Your task to perform on an android device: open app "Pluto TV - Live TV and Movies" Image 0: 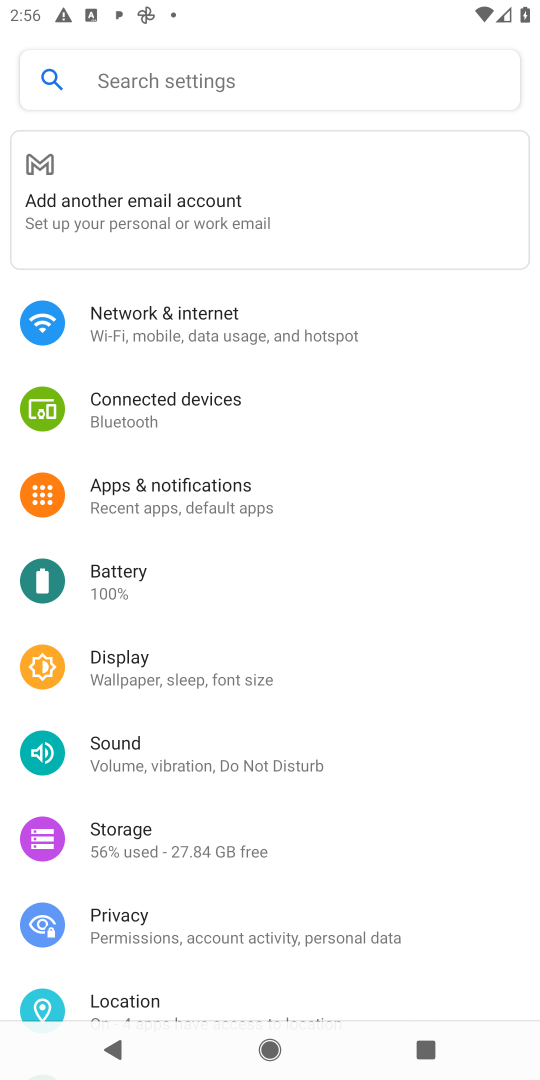
Step 0: press home button
Your task to perform on an android device: open app "Pluto TV - Live TV and Movies" Image 1: 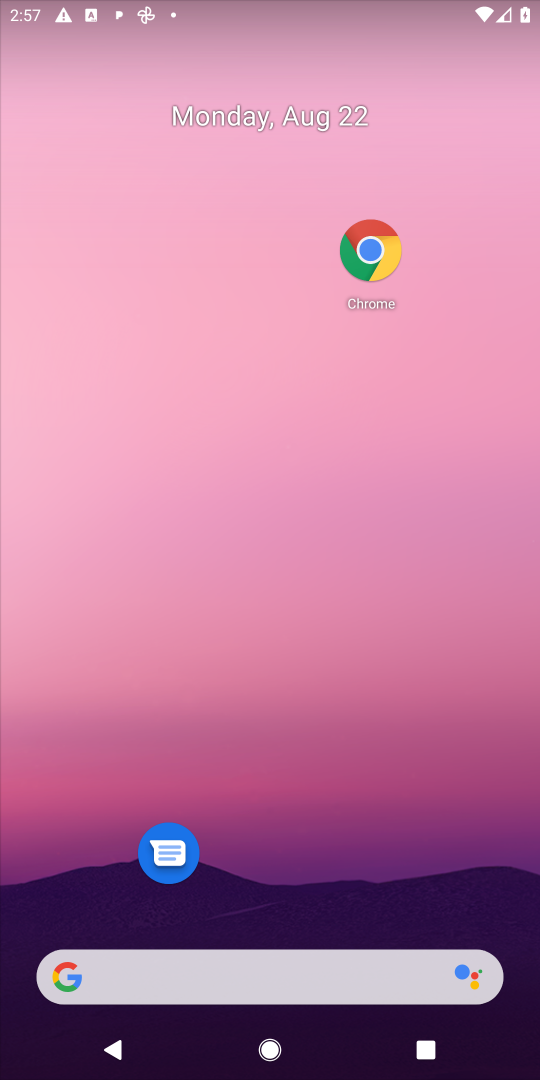
Step 1: drag from (225, 733) to (178, 336)
Your task to perform on an android device: open app "Pluto TV - Live TV and Movies" Image 2: 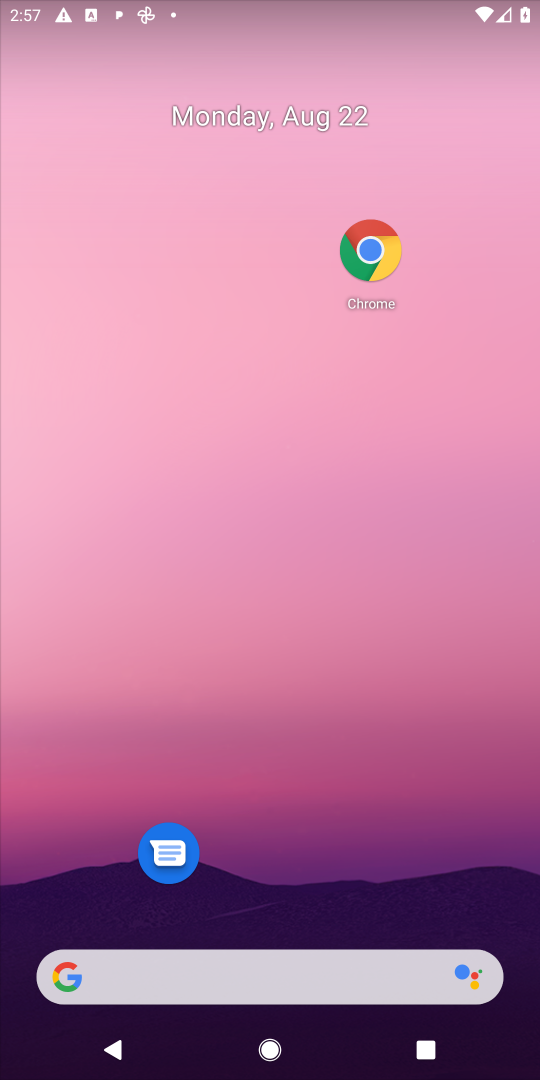
Step 2: drag from (220, 948) to (230, 146)
Your task to perform on an android device: open app "Pluto TV - Live TV and Movies" Image 3: 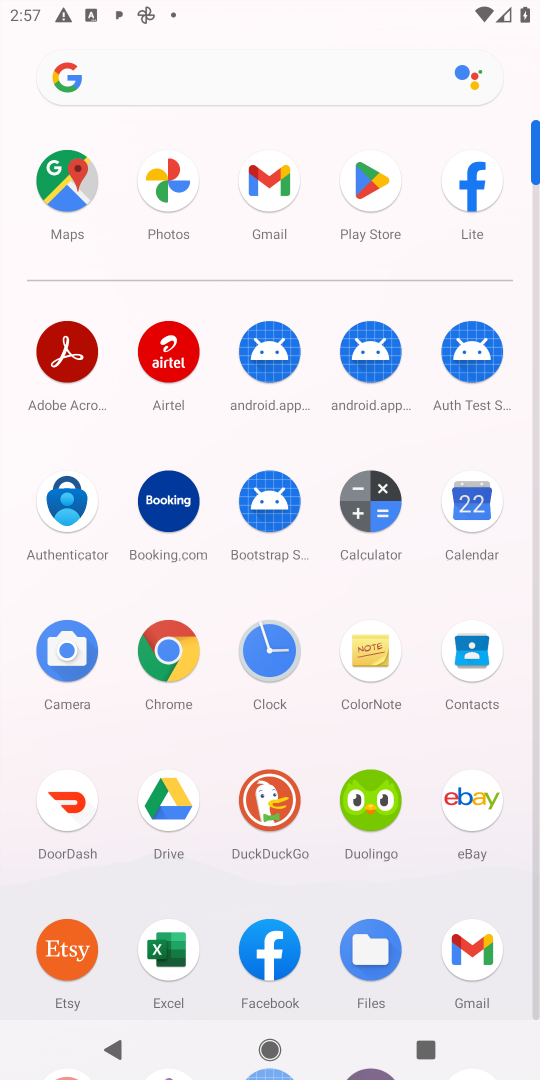
Step 3: click (365, 188)
Your task to perform on an android device: open app "Pluto TV - Live TV and Movies" Image 4: 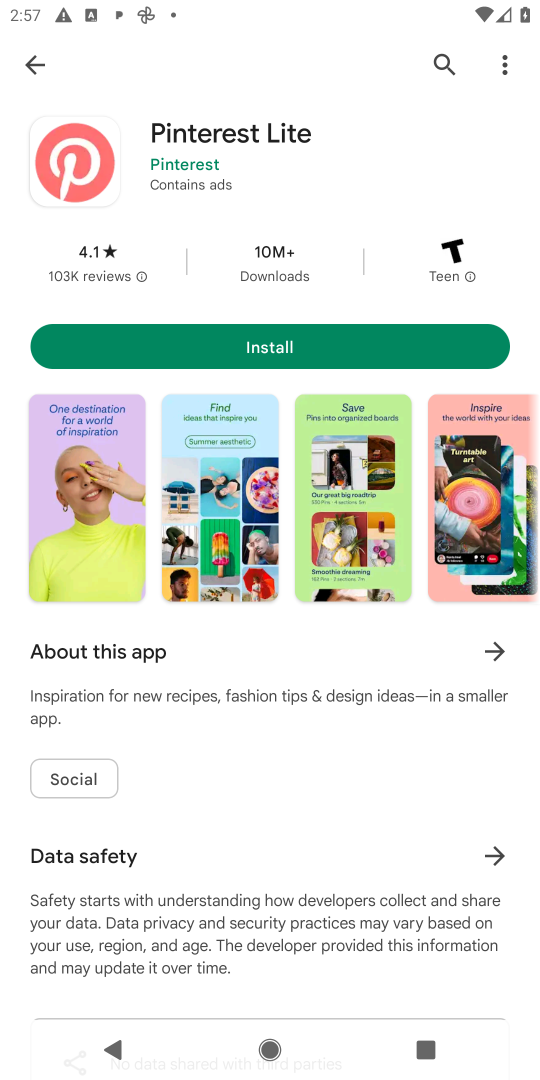
Step 4: click (44, 60)
Your task to perform on an android device: open app "Pluto TV - Live TV and Movies" Image 5: 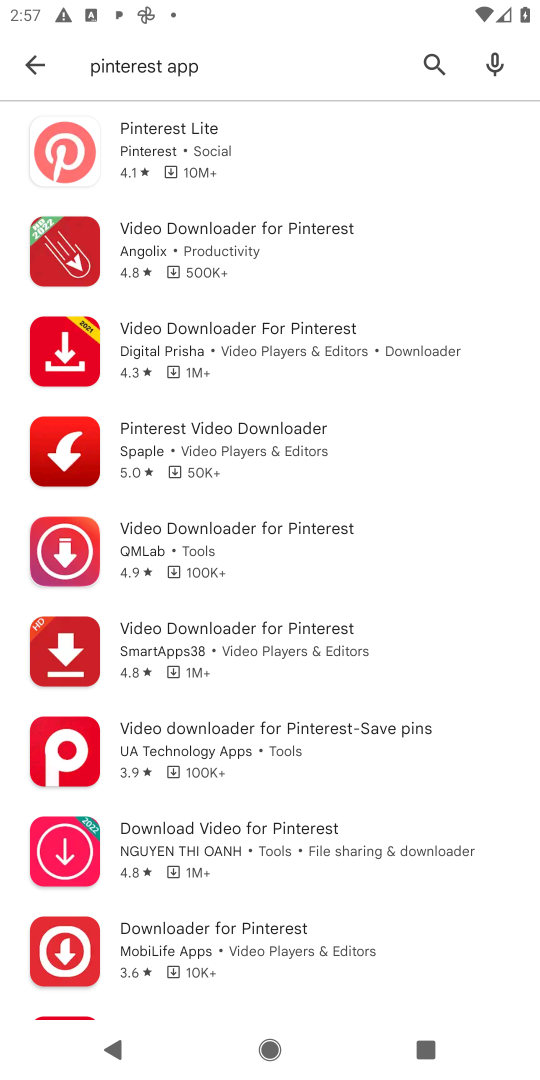
Step 5: click (36, 57)
Your task to perform on an android device: open app "Pluto TV - Live TV and Movies" Image 6: 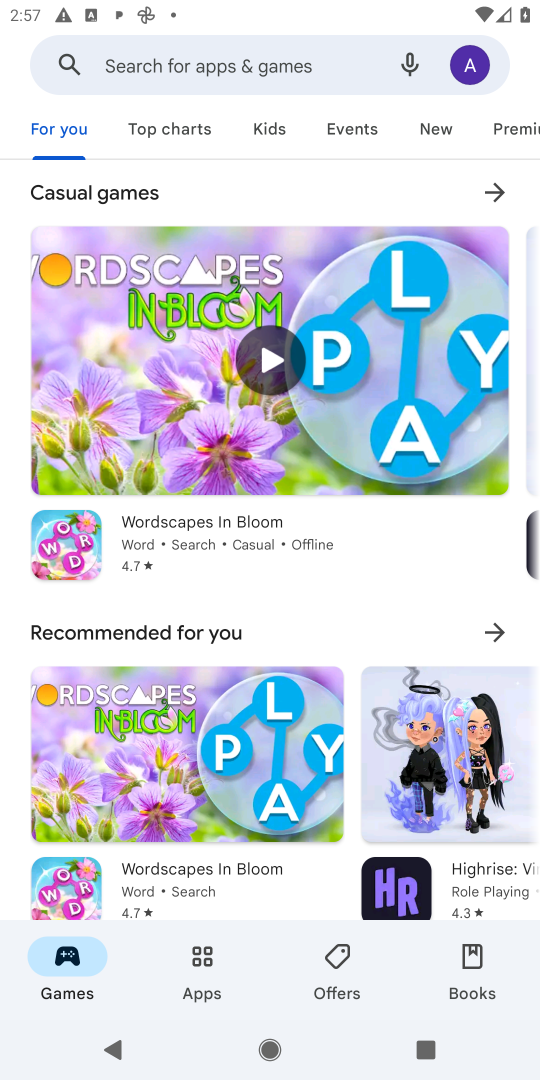
Step 6: click (217, 62)
Your task to perform on an android device: open app "Pluto TV - Live TV and Movies" Image 7: 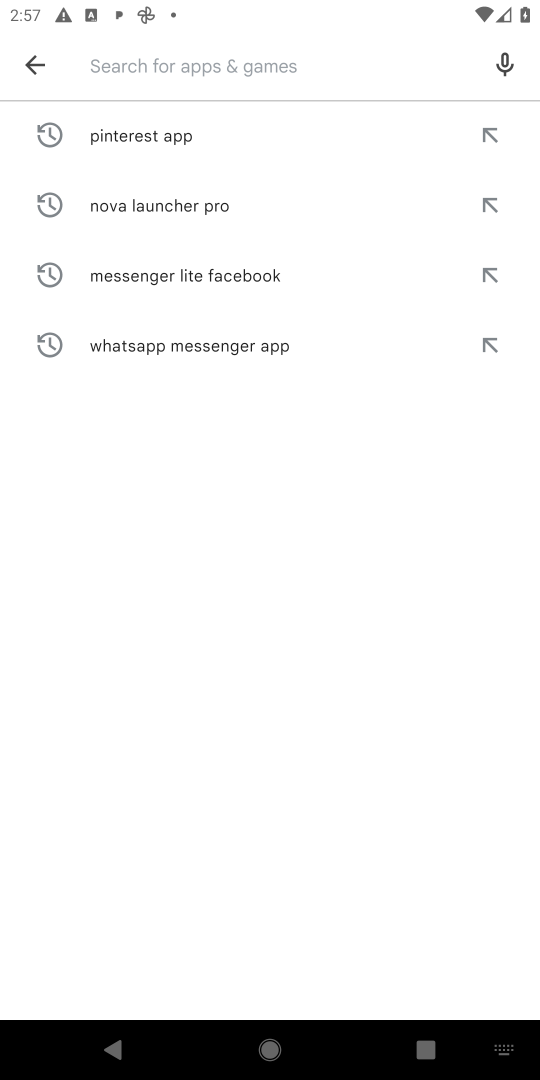
Step 7: click (239, 56)
Your task to perform on an android device: open app "Pluto TV - Live TV and Movies" Image 8: 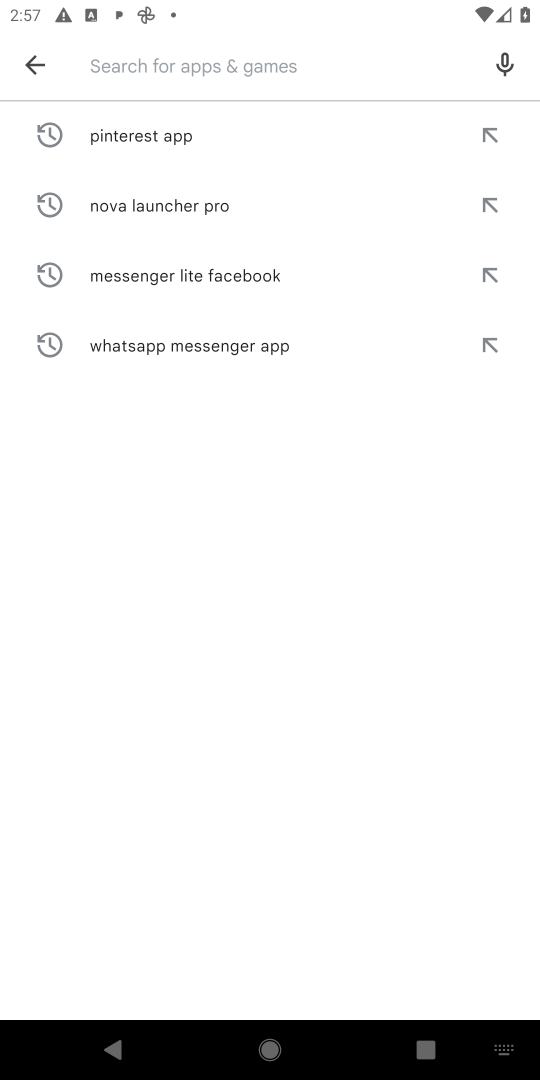
Step 8: type "Pluto TV - Live TV and Movies "
Your task to perform on an android device: open app "Pluto TV - Live TV and Movies" Image 9: 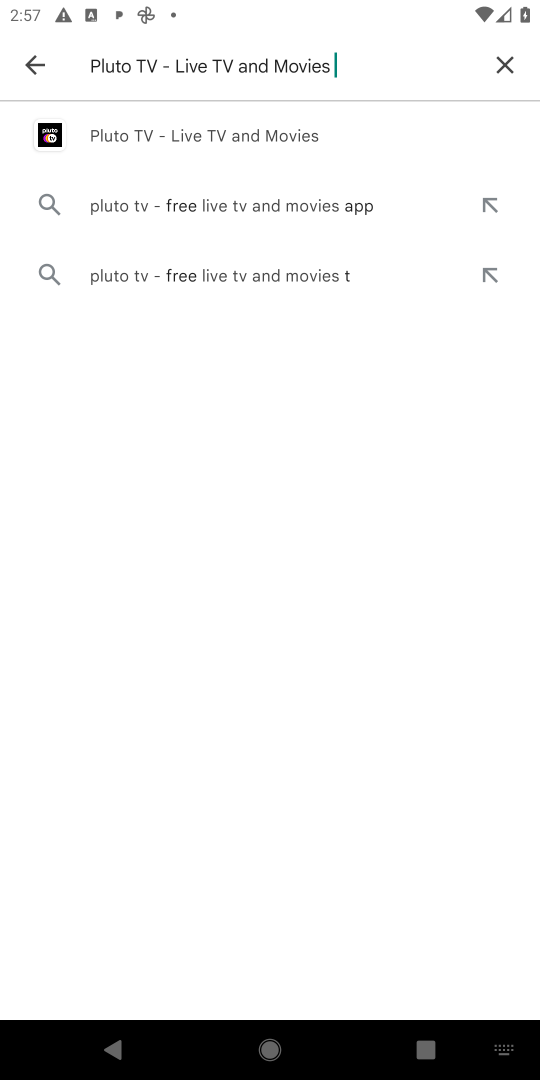
Step 9: click (177, 140)
Your task to perform on an android device: open app "Pluto TV - Live TV and Movies" Image 10: 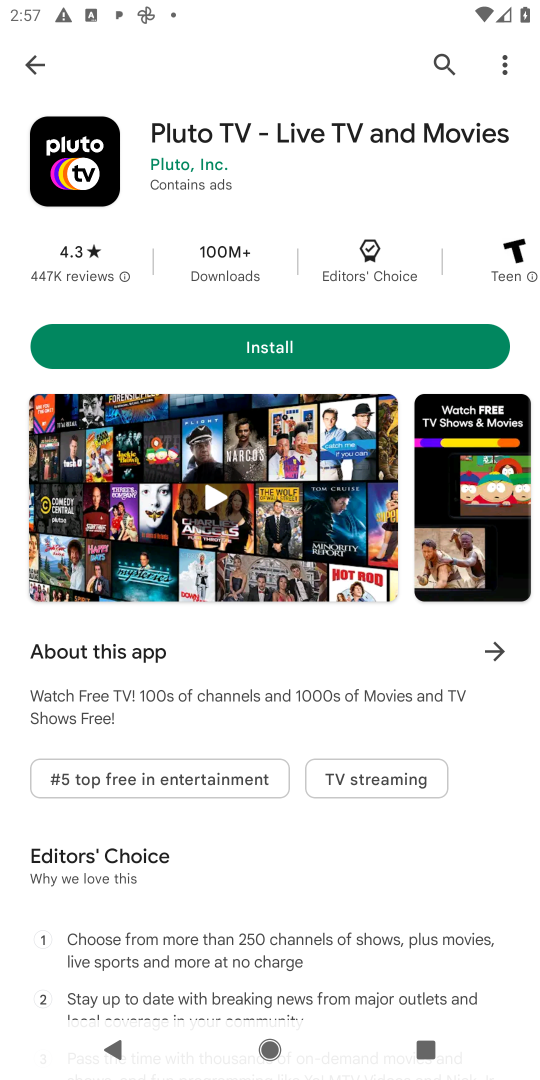
Step 10: click (373, 343)
Your task to perform on an android device: open app "Pluto TV - Live TV and Movies" Image 11: 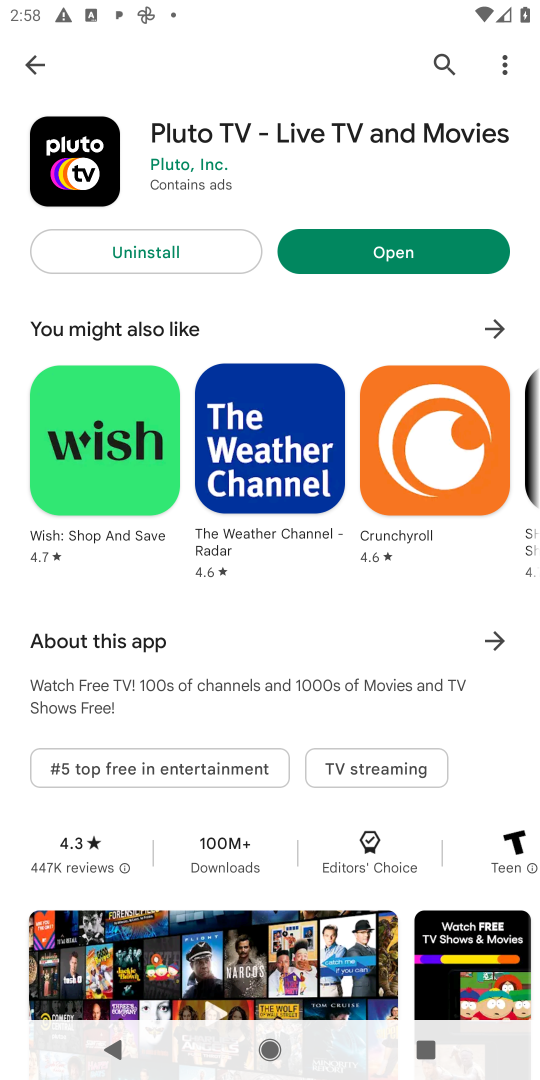
Step 11: click (454, 247)
Your task to perform on an android device: open app "Pluto TV - Live TV and Movies" Image 12: 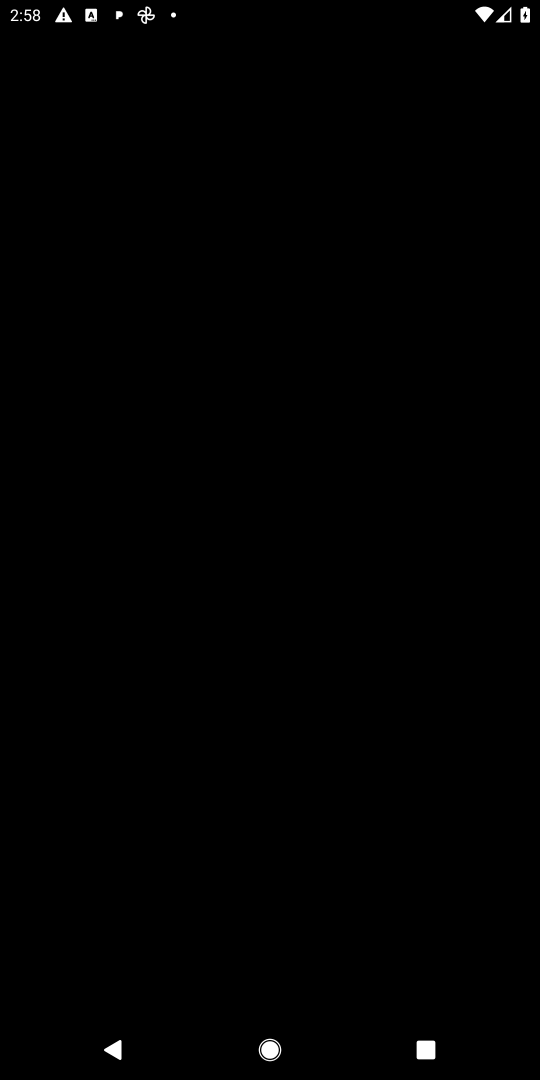
Step 12: task complete